Your task to perform on an android device: Open eBay Image 0: 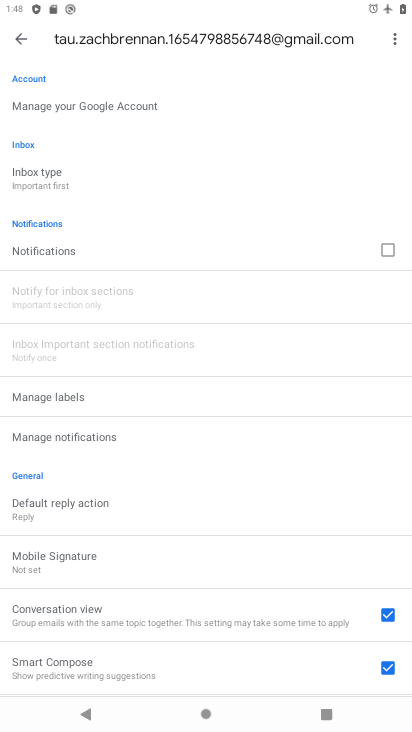
Step 0: press home button
Your task to perform on an android device: Open eBay Image 1: 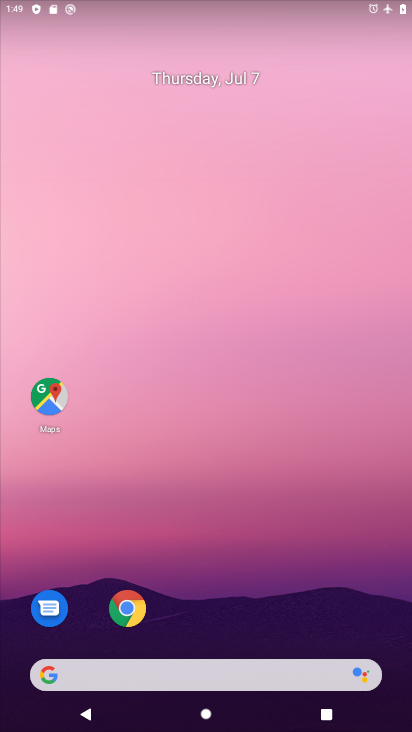
Step 1: click (126, 605)
Your task to perform on an android device: Open eBay Image 2: 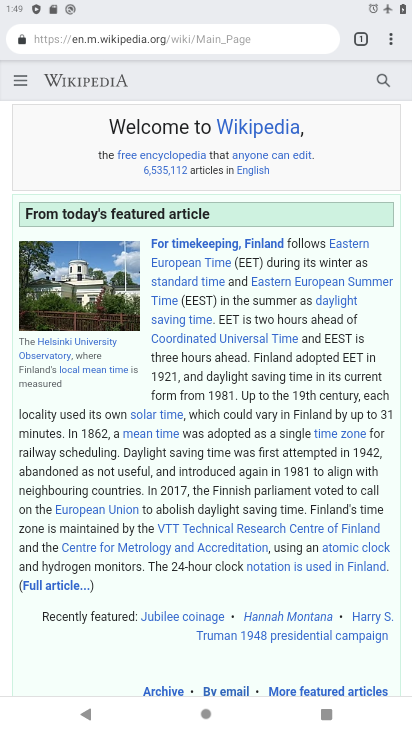
Step 2: click (392, 44)
Your task to perform on an android device: Open eBay Image 3: 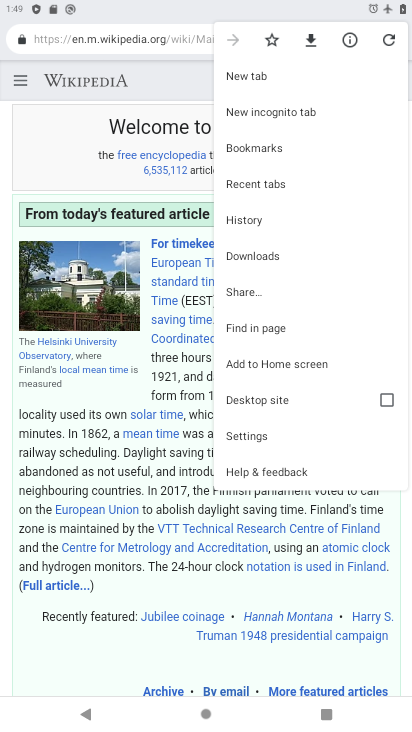
Step 3: click (234, 74)
Your task to perform on an android device: Open eBay Image 4: 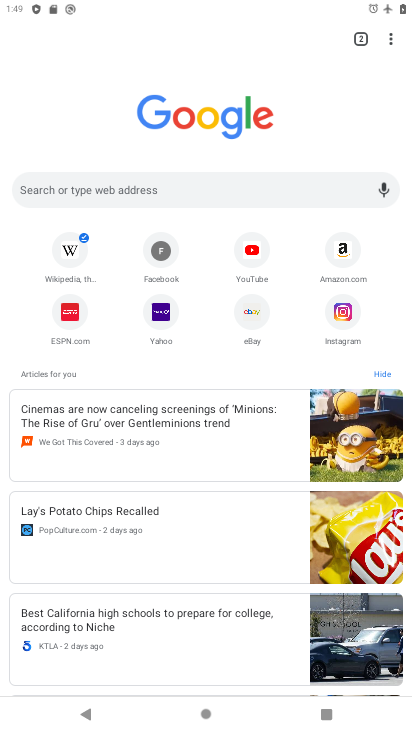
Step 4: click (256, 313)
Your task to perform on an android device: Open eBay Image 5: 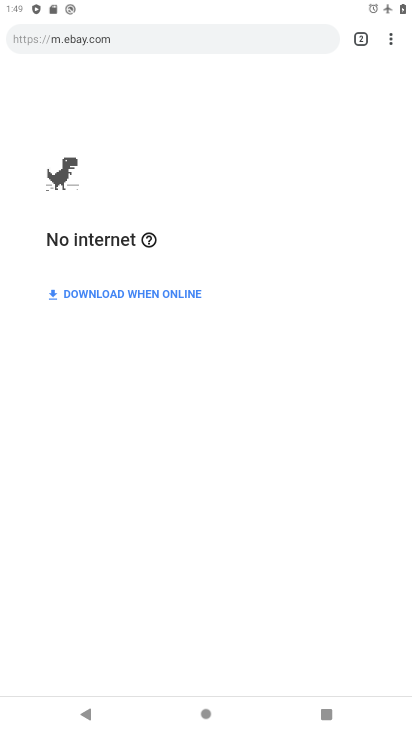
Step 5: task complete